Your task to perform on an android device: turn on priority inbox in the gmail app Image 0: 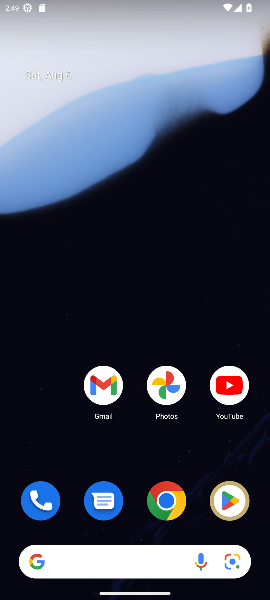
Step 0: click (115, 387)
Your task to perform on an android device: turn on priority inbox in the gmail app Image 1: 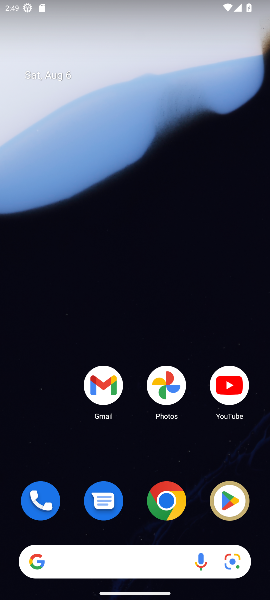
Step 1: click (115, 387)
Your task to perform on an android device: turn on priority inbox in the gmail app Image 2: 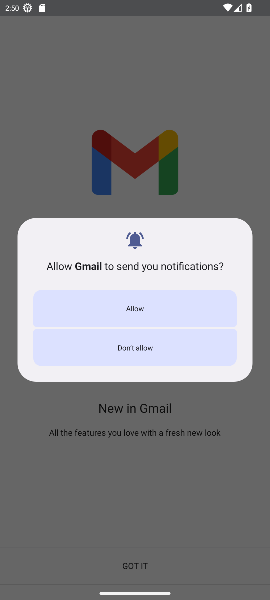
Step 2: click (143, 303)
Your task to perform on an android device: turn on priority inbox in the gmail app Image 3: 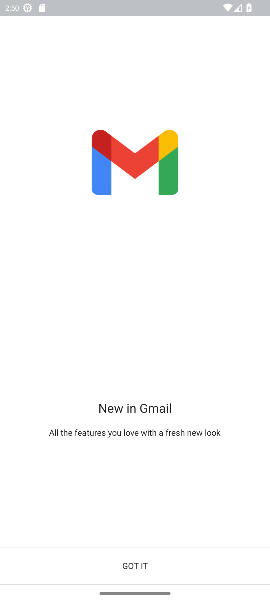
Step 3: click (155, 560)
Your task to perform on an android device: turn on priority inbox in the gmail app Image 4: 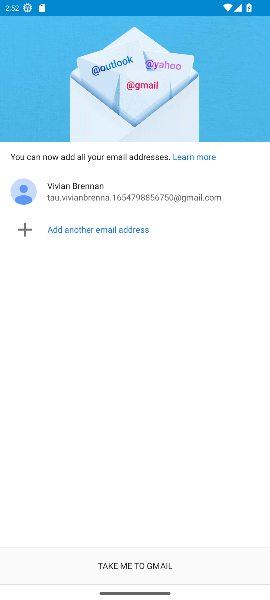
Step 4: click (103, 562)
Your task to perform on an android device: turn on priority inbox in the gmail app Image 5: 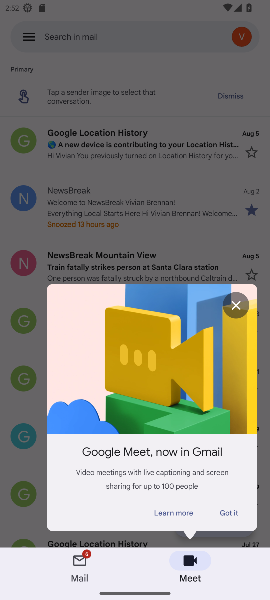
Step 5: click (236, 315)
Your task to perform on an android device: turn on priority inbox in the gmail app Image 6: 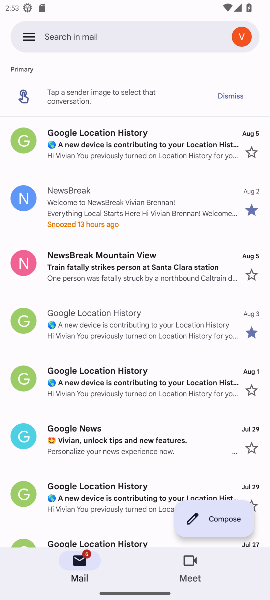
Step 6: click (26, 36)
Your task to perform on an android device: turn on priority inbox in the gmail app Image 7: 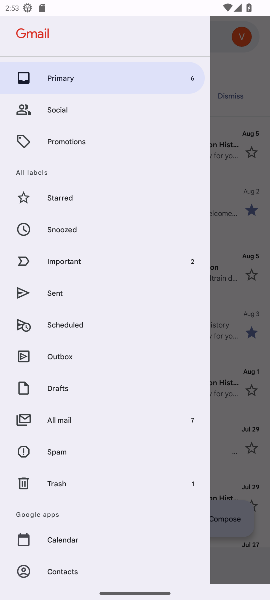
Step 7: drag from (116, 531) to (166, 87)
Your task to perform on an android device: turn on priority inbox in the gmail app Image 8: 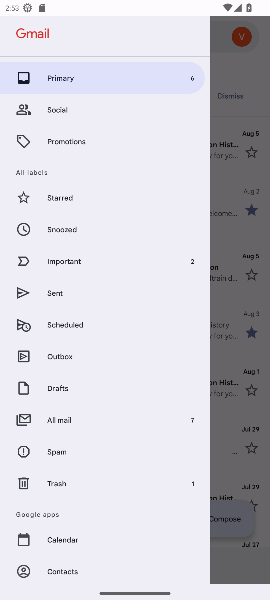
Step 8: drag from (128, 529) to (210, 76)
Your task to perform on an android device: turn on priority inbox in the gmail app Image 9: 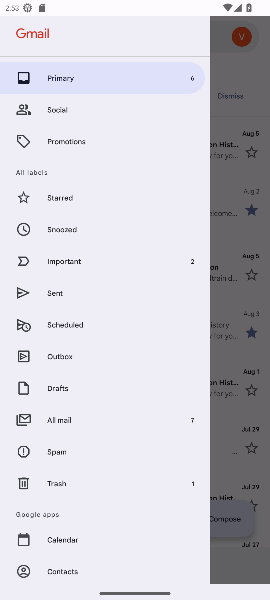
Step 9: drag from (129, 552) to (182, 94)
Your task to perform on an android device: turn on priority inbox in the gmail app Image 10: 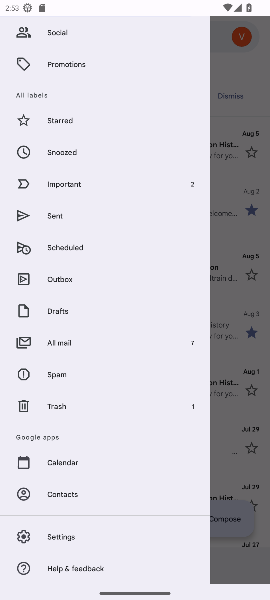
Step 10: click (75, 536)
Your task to perform on an android device: turn on priority inbox in the gmail app Image 11: 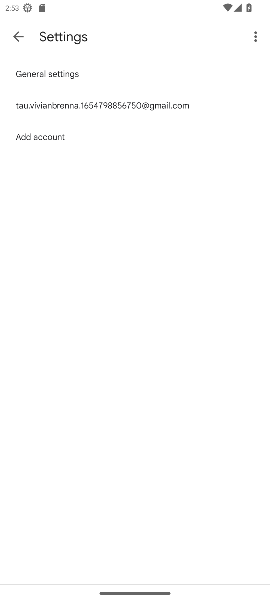
Step 11: click (90, 97)
Your task to perform on an android device: turn on priority inbox in the gmail app Image 12: 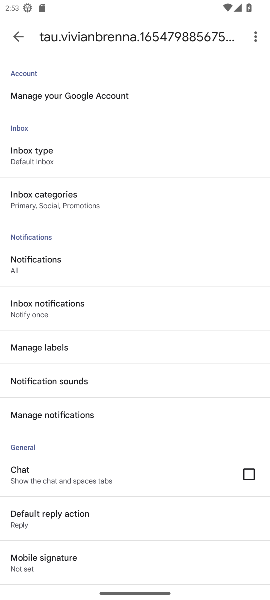
Step 12: click (33, 160)
Your task to perform on an android device: turn on priority inbox in the gmail app Image 13: 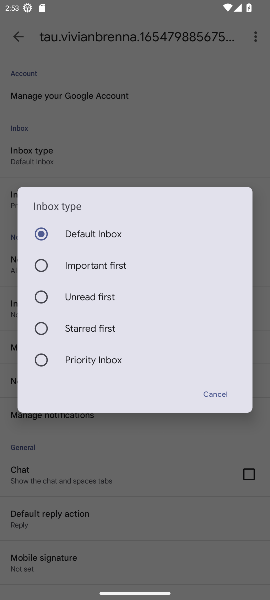
Step 13: click (99, 358)
Your task to perform on an android device: turn on priority inbox in the gmail app Image 14: 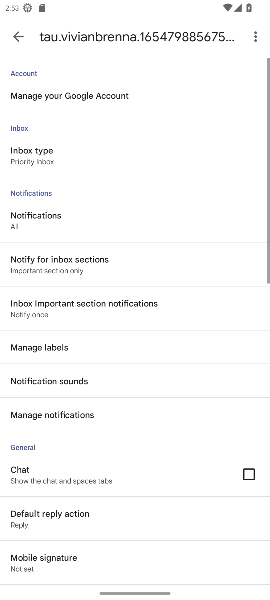
Step 14: task complete